Your task to perform on an android device: uninstall "Etsy: Buy & Sell Unique Items" Image 0: 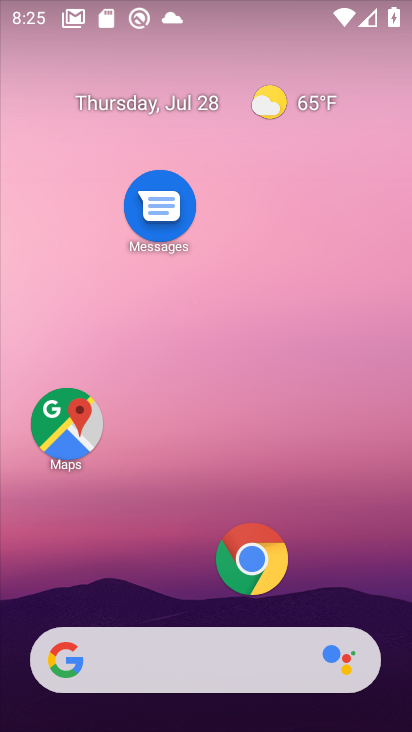
Step 0: drag from (201, 593) to (217, 31)
Your task to perform on an android device: uninstall "Etsy: Buy & Sell Unique Items" Image 1: 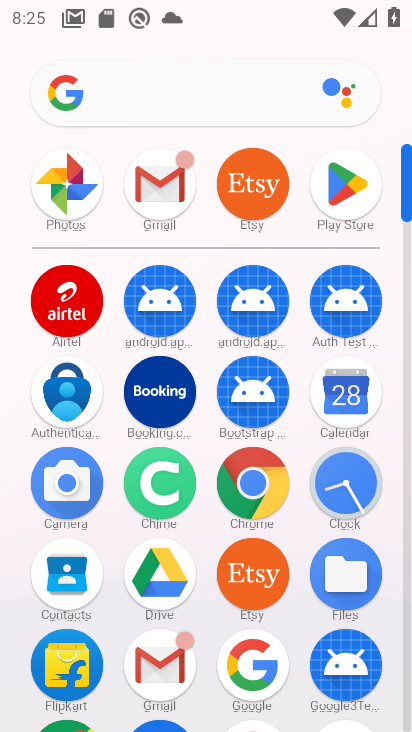
Step 1: click (247, 580)
Your task to perform on an android device: uninstall "Etsy: Buy & Sell Unique Items" Image 2: 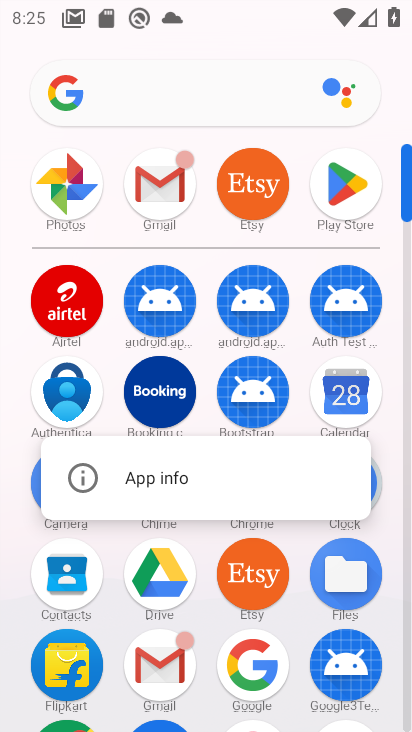
Step 2: click (97, 484)
Your task to perform on an android device: uninstall "Etsy: Buy & Sell Unique Items" Image 3: 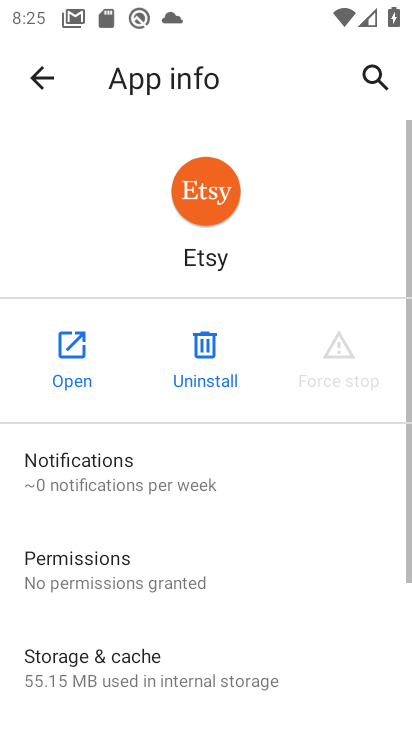
Step 3: click (198, 368)
Your task to perform on an android device: uninstall "Etsy: Buy & Sell Unique Items" Image 4: 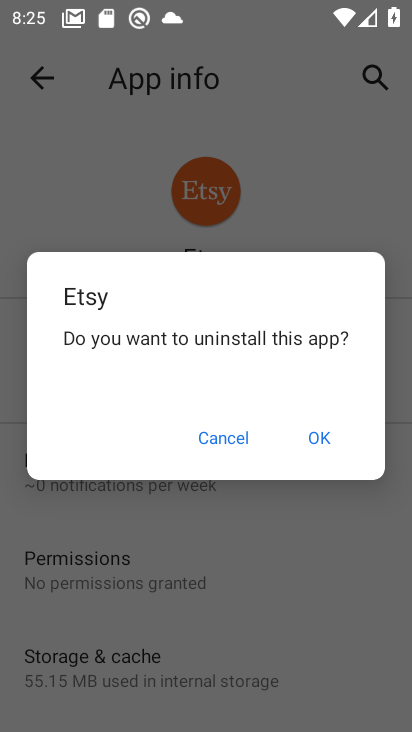
Step 4: click (315, 442)
Your task to perform on an android device: uninstall "Etsy: Buy & Sell Unique Items" Image 5: 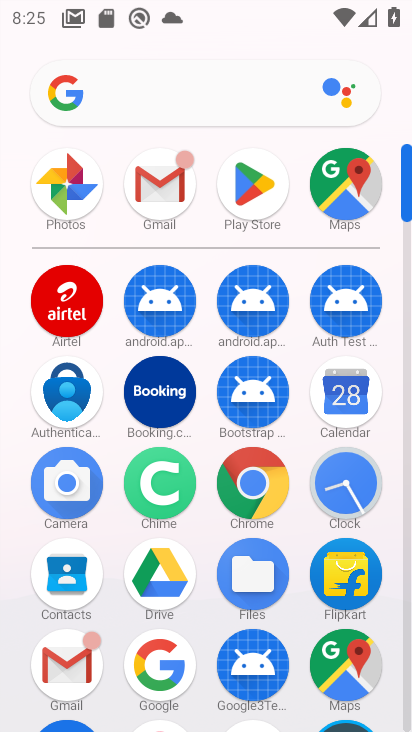
Step 5: task complete